Your task to perform on an android device: toggle javascript in the chrome app Image 0: 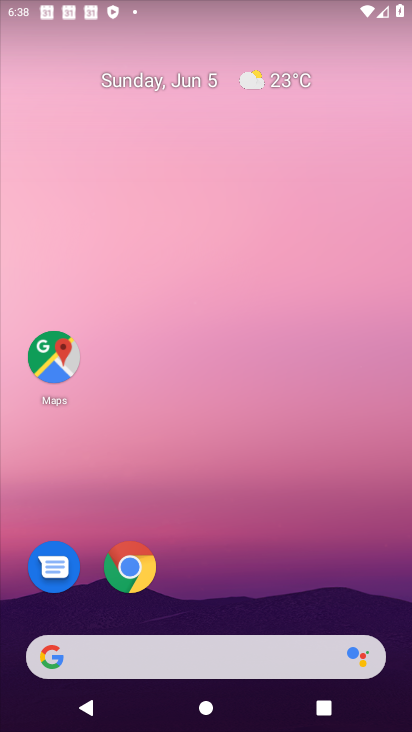
Step 0: drag from (258, 99) to (231, 43)
Your task to perform on an android device: toggle javascript in the chrome app Image 1: 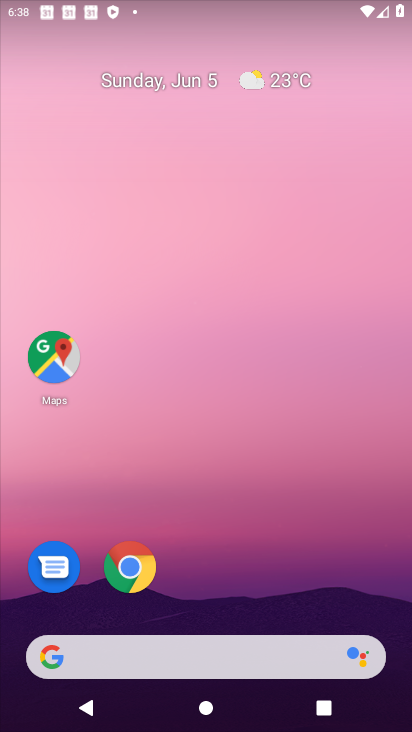
Step 1: drag from (347, 614) to (283, 51)
Your task to perform on an android device: toggle javascript in the chrome app Image 2: 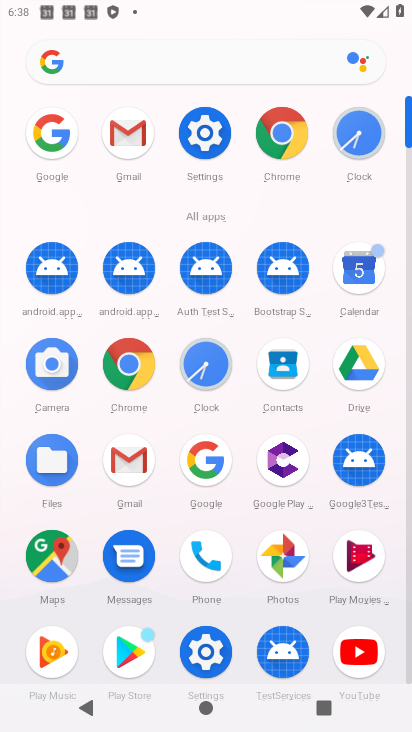
Step 2: click (298, 142)
Your task to perform on an android device: toggle javascript in the chrome app Image 3: 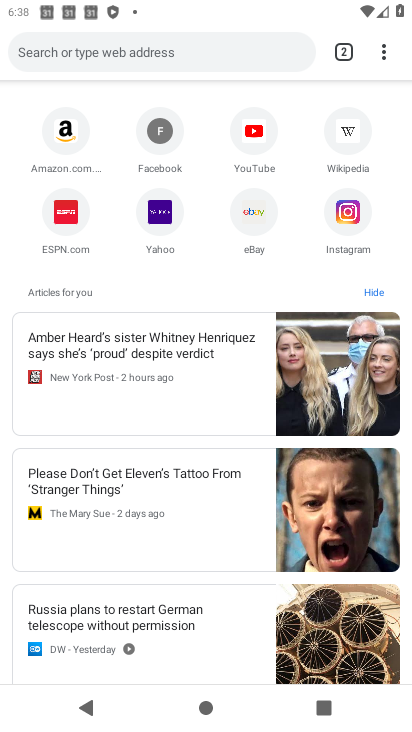
Step 3: click (380, 43)
Your task to perform on an android device: toggle javascript in the chrome app Image 4: 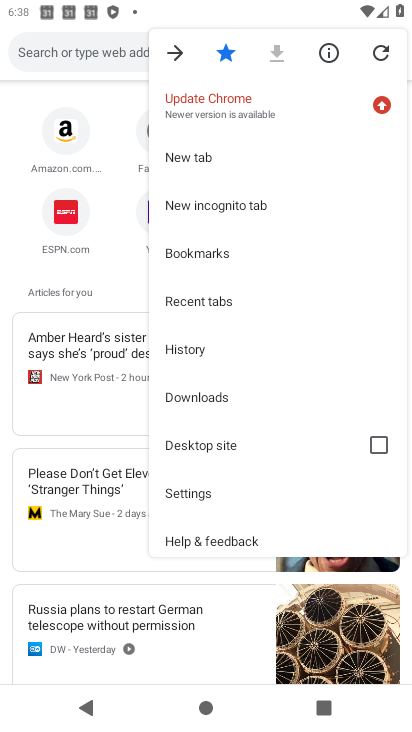
Step 4: click (248, 491)
Your task to perform on an android device: toggle javascript in the chrome app Image 5: 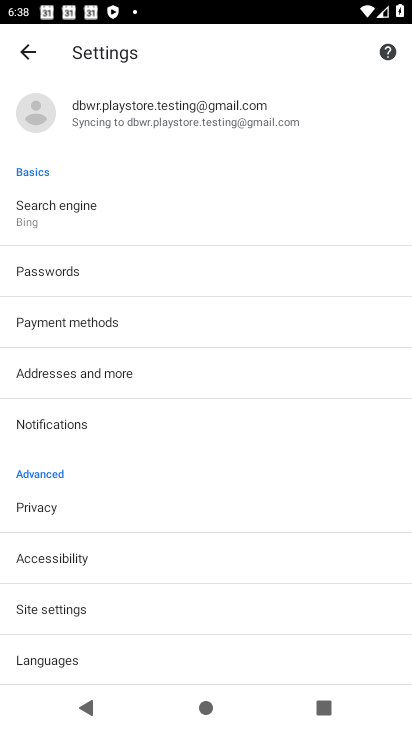
Step 5: click (89, 616)
Your task to perform on an android device: toggle javascript in the chrome app Image 6: 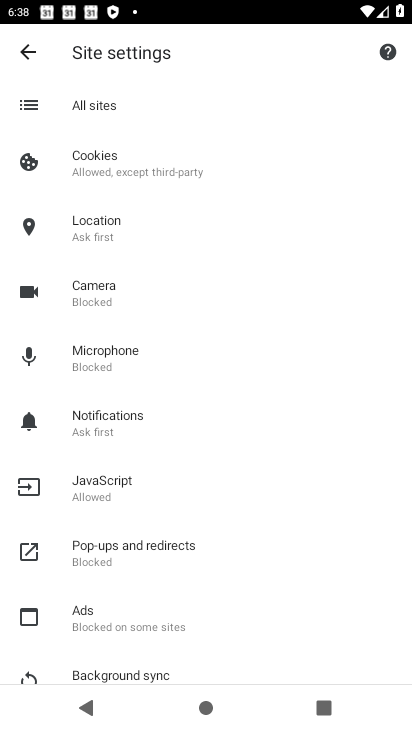
Step 6: click (147, 486)
Your task to perform on an android device: toggle javascript in the chrome app Image 7: 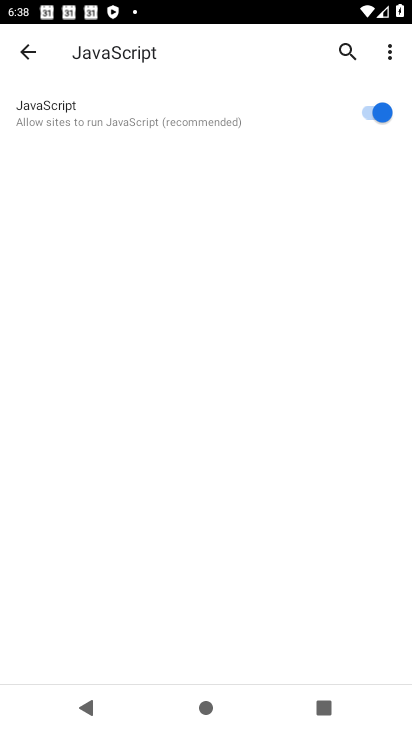
Step 7: click (346, 117)
Your task to perform on an android device: toggle javascript in the chrome app Image 8: 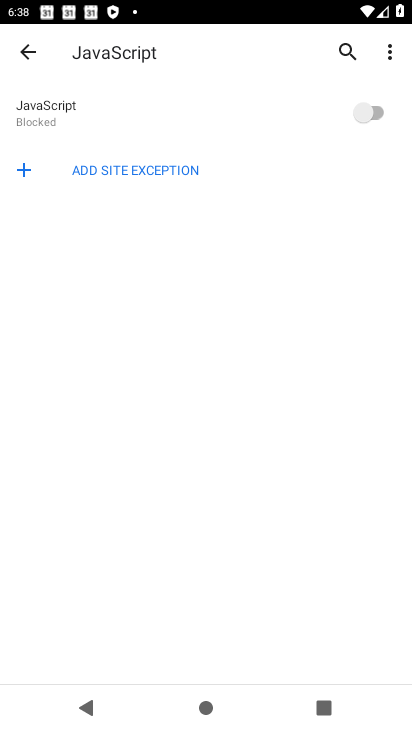
Step 8: task complete